Your task to perform on an android device: turn off translation in the chrome app Image 0: 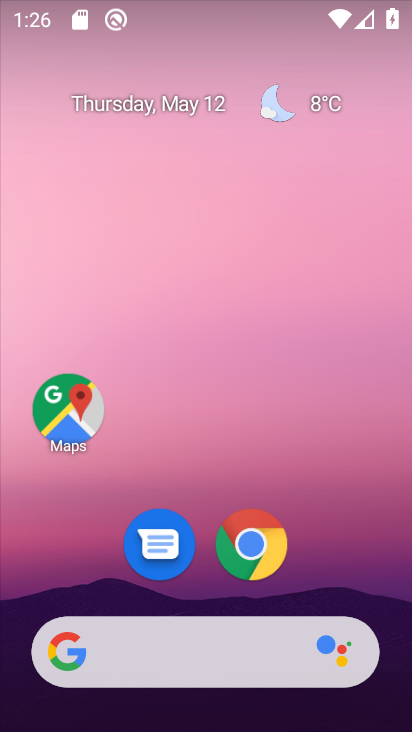
Step 0: click (267, 569)
Your task to perform on an android device: turn off translation in the chrome app Image 1: 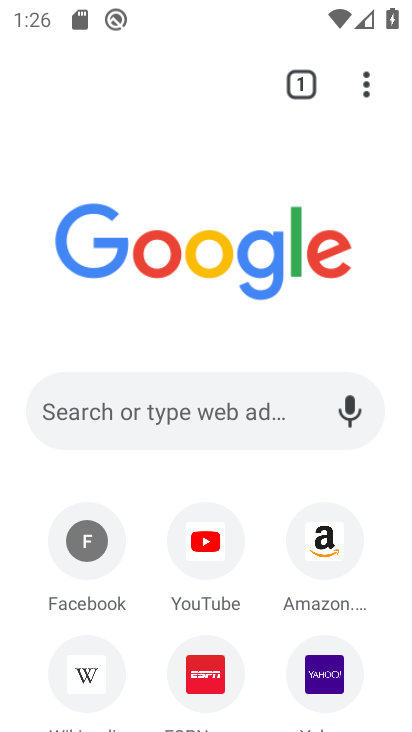
Step 1: click (368, 86)
Your task to perform on an android device: turn off translation in the chrome app Image 2: 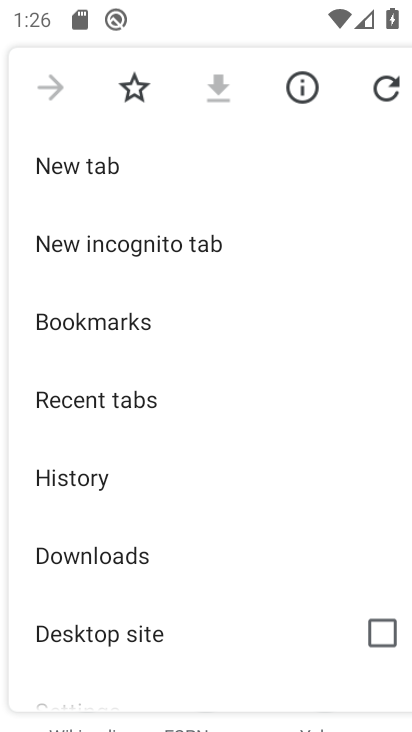
Step 2: drag from (182, 622) to (226, 125)
Your task to perform on an android device: turn off translation in the chrome app Image 3: 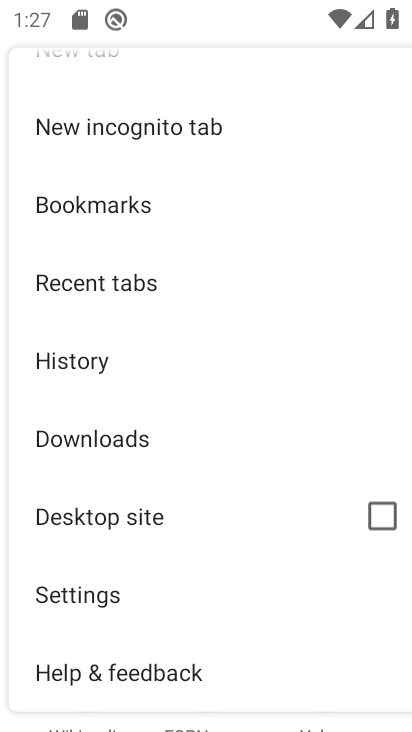
Step 3: click (114, 608)
Your task to perform on an android device: turn off translation in the chrome app Image 4: 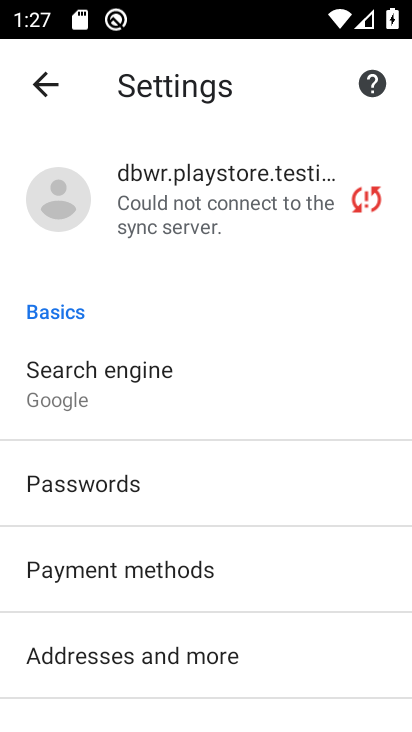
Step 4: drag from (164, 576) to (248, 105)
Your task to perform on an android device: turn off translation in the chrome app Image 5: 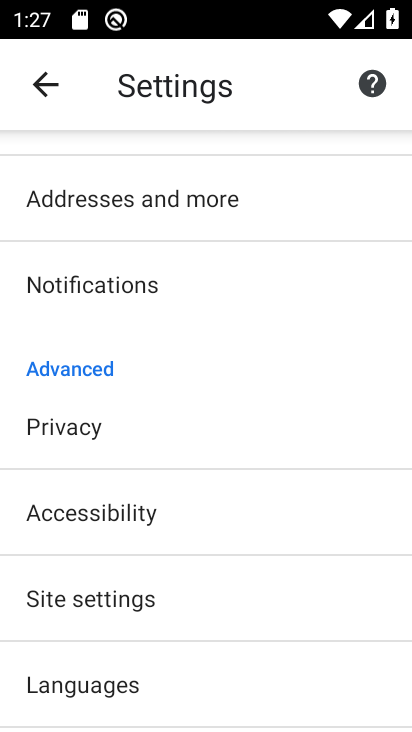
Step 5: click (149, 675)
Your task to perform on an android device: turn off translation in the chrome app Image 6: 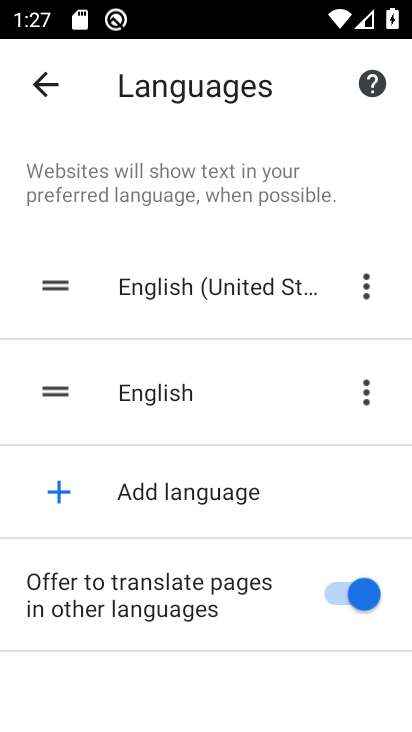
Step 6: click (336, 587)
Your task to perform on an android device: turn off translation in the chrome app Image 7: 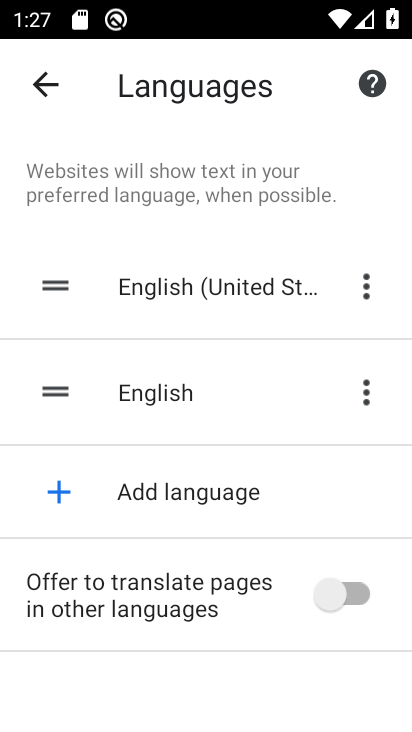
Step 7: task complete